Your task to perform on an android device: What is the news today? Image 0: 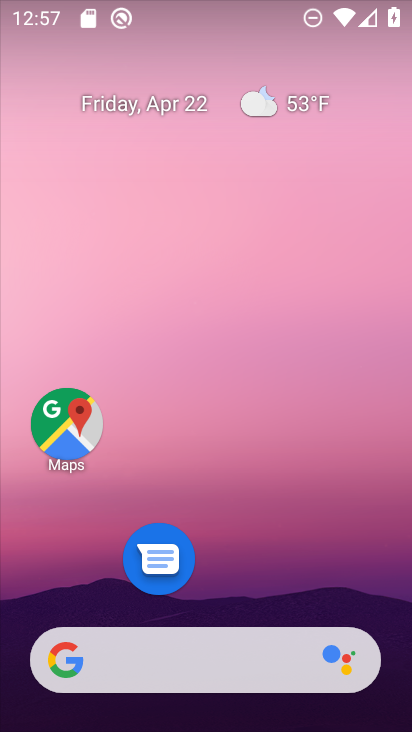
Step 0: drag from (8, 350) to (393, 372)
Your task to perform on an android device: What is the news today? Image 1: 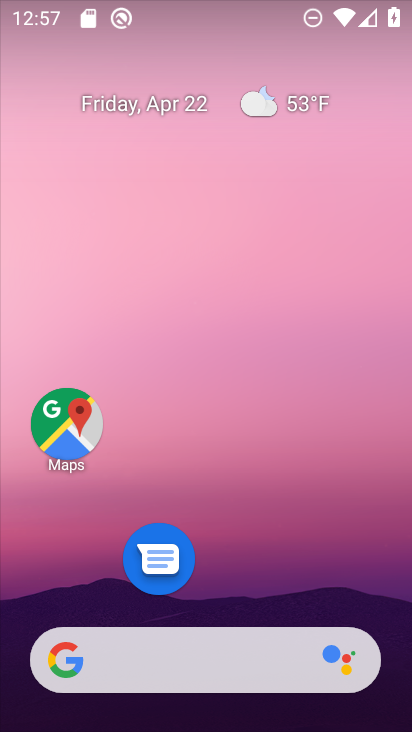
Step 1: task complete